Your task to perform on an android device: all mails in gmail Image 0: 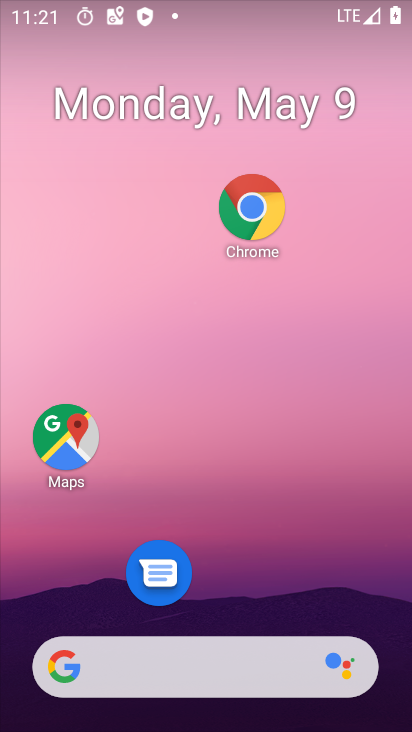
Step 0: drag from (269, 553) to (311, 263)
Your task to perform on an android device: all mails in gmail Image 1: 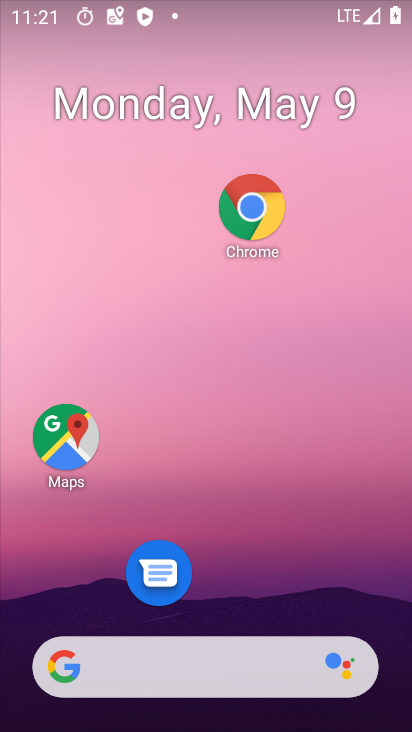
Step 1: drag from (307, 532) to (279, 77)
Your task to perform on an android device: all mails in gmail Image 2: 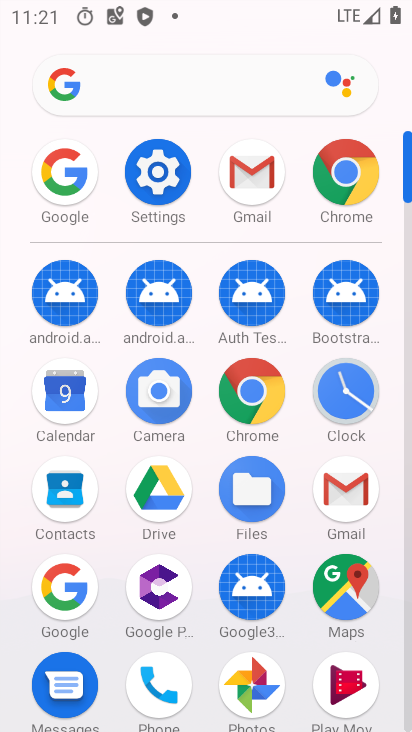
Step 2: click (410, 358)
Your task to perform on an android device: all mails in gmail Image 3: 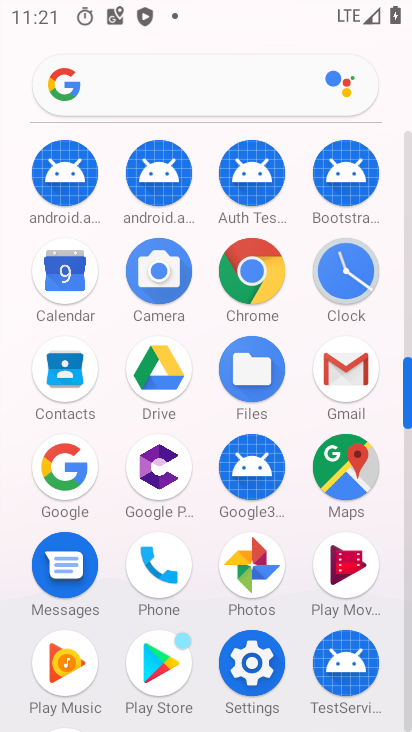
Step 3: click (335, 373)
Your task to perform on an android device: all mails in gmail Image 4: 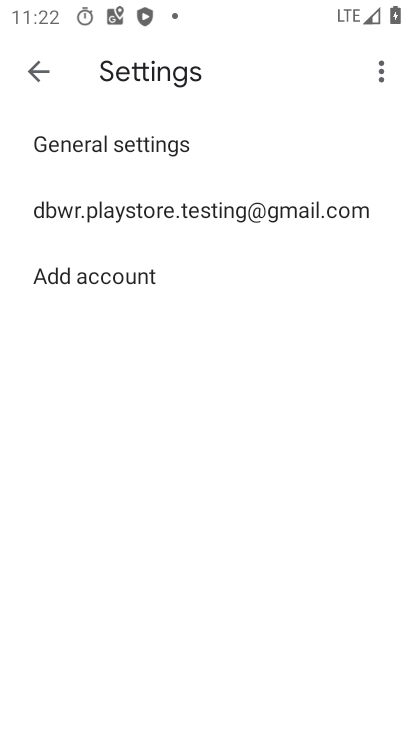
Step 4: click (46, 70)
Your task to perform on an android device: all mails in gmail Image 5: 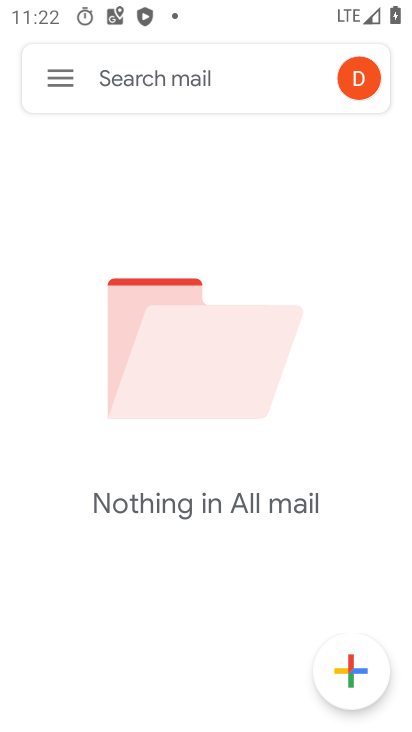
Step 5: click (46, 70)
Your task to perform on an android device: all mails in gmail Image 6: 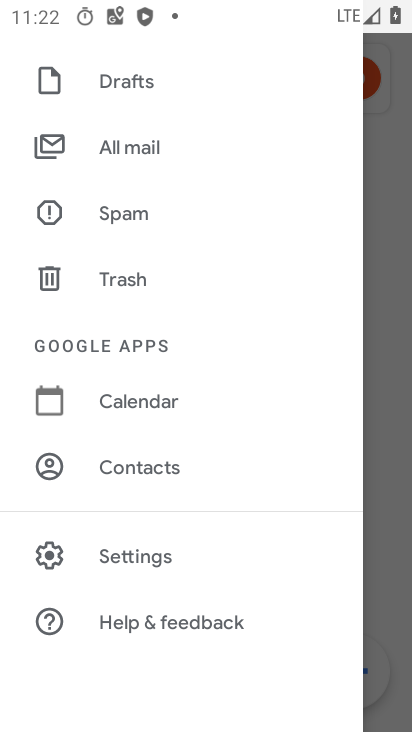
Step 6: click (68, 141)
Your task to perform on an android device: all mails in gmail Image 7: 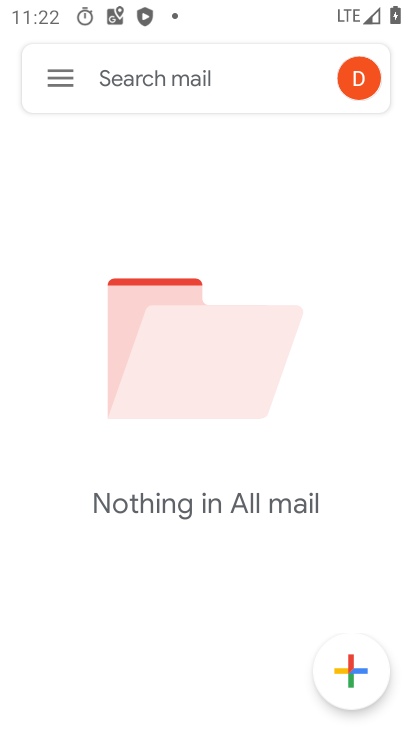
Step 7: task complete